Your task to perform on an android device: Check the news Image 0: 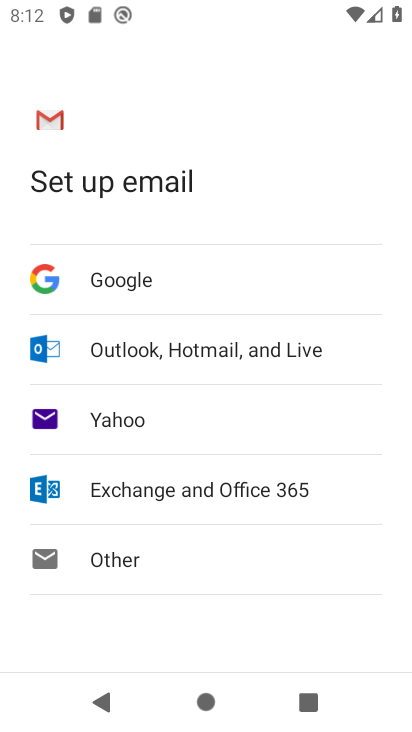
Step 0: press home button
Your task to perform on an android device: Check the news Image 1: 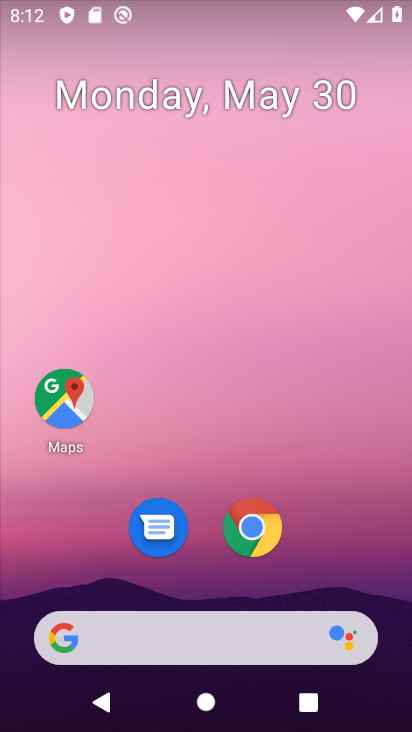
Step 1: drag from (197, 597) to (199, 268)
Your task to perform on an android device: Check the news Image 2: 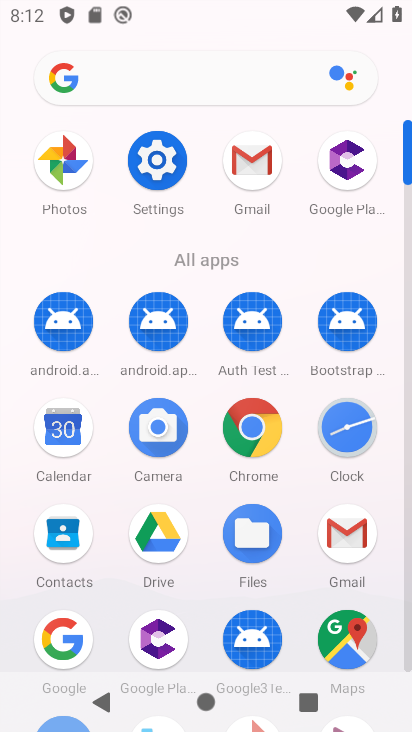
Step 2: click (33, 655)
Your task to perform on an android device: Check the news Image 3: 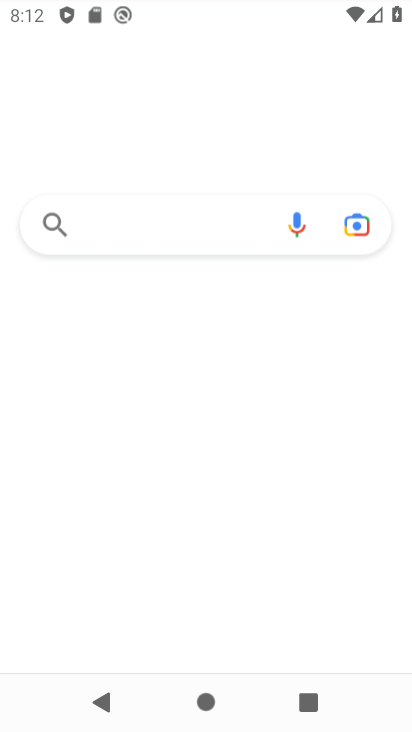
Step 3: click (57, 643)
Your task to perform on an android device: Check the news Image 4: 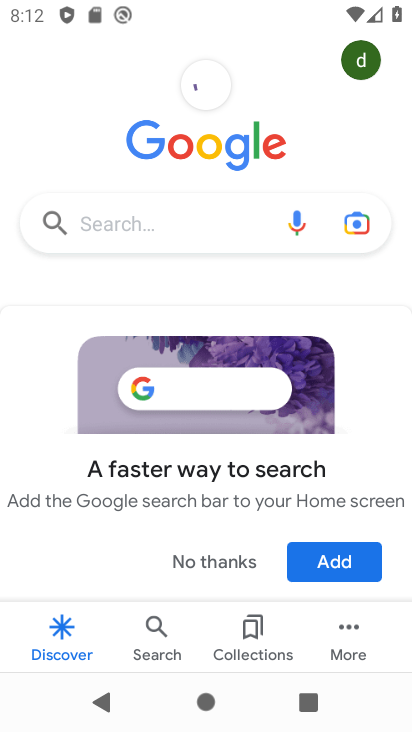
Step 4: click (115, 226)
Your task to perform on an android device: Check the news Image 5: 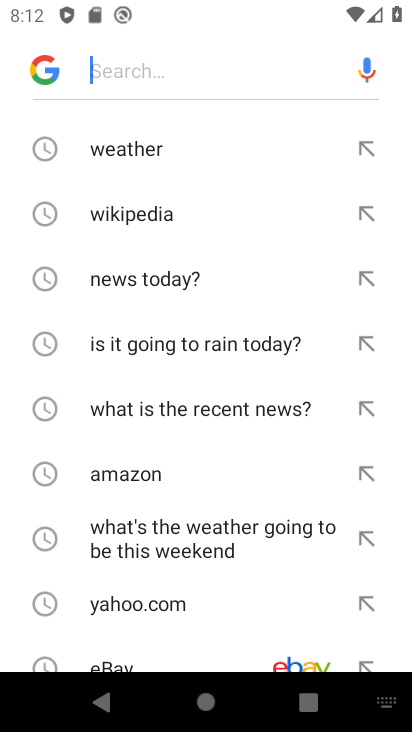
Step 5: drag from (155, 461) to (155, 220)
Your task to perform on an android device: Check the news Image 6: 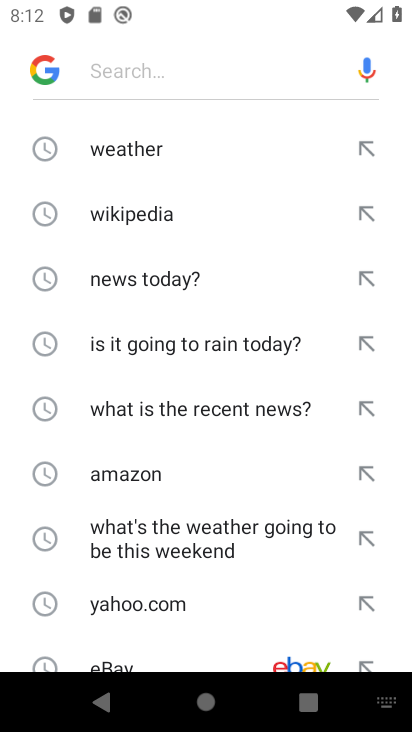
Step 6: drag from (159, 600) to (159, 268)
Your task to perform on an android device: Check the news Image 7: 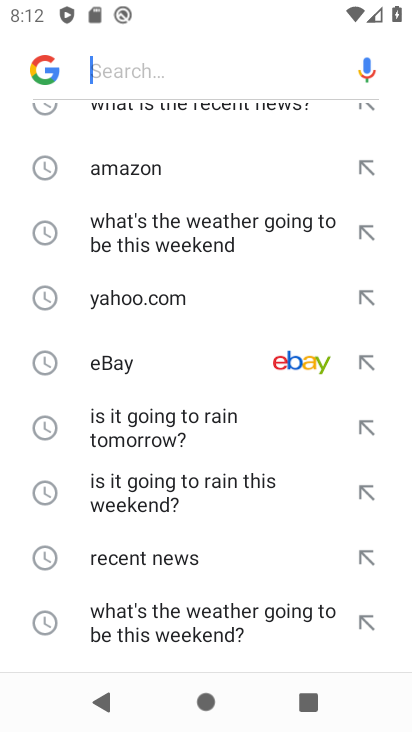
Step 7: drag from (153, 120) to (185, 441)
Your task to perform on an android device: Check the news Image 8: 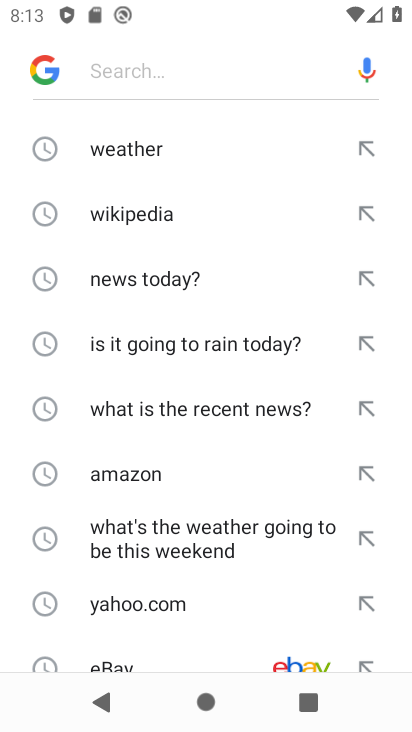
Step 8: click (159, 276)
Your task to perform on an android device: Check the news Image 9: 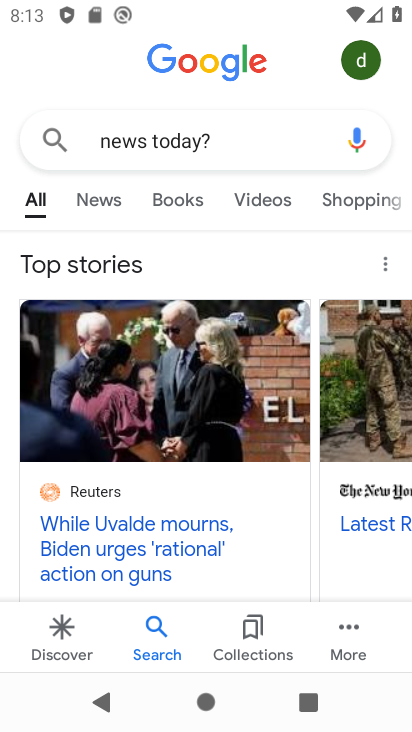
Step 9: task complete